Your task to perform on an android device: turn on the 12-hour format for clock Image 0: 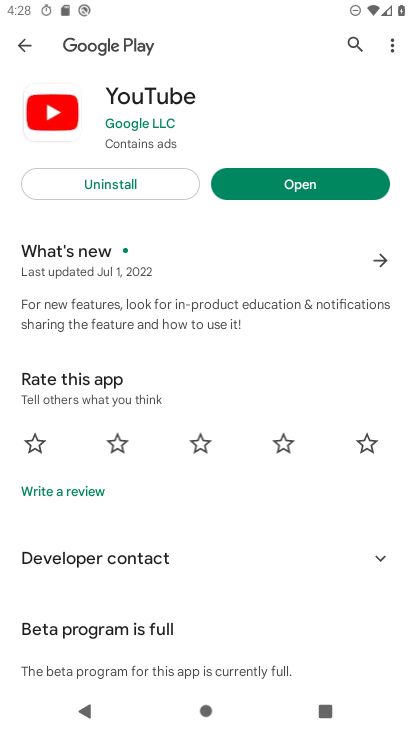
Step 0: press home button
Your task to perform on an android device: turn on the 12-hour format for clock Image 1: 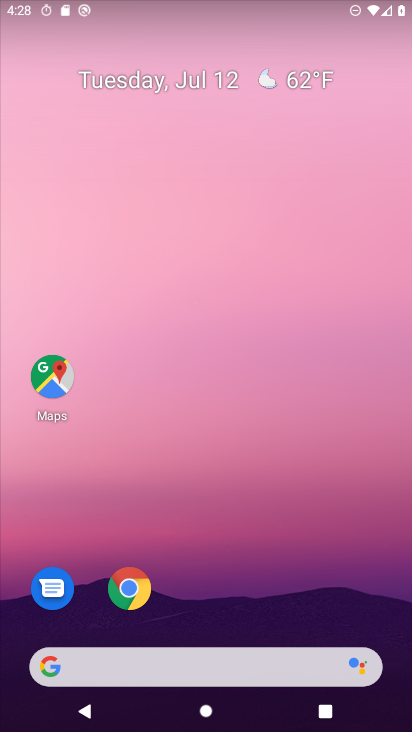
Step 1: drag from (208, 598) to (216, 69)
Your task to perform on an android device: turn on the 12-hour format for clock Image 2: 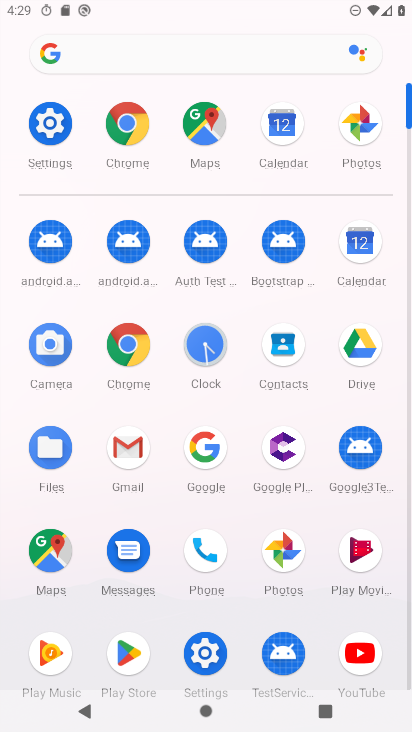
Step 2: click (195, 654)
Your task to perform on an android device: turn on the 12-hour format for clock Image 3: 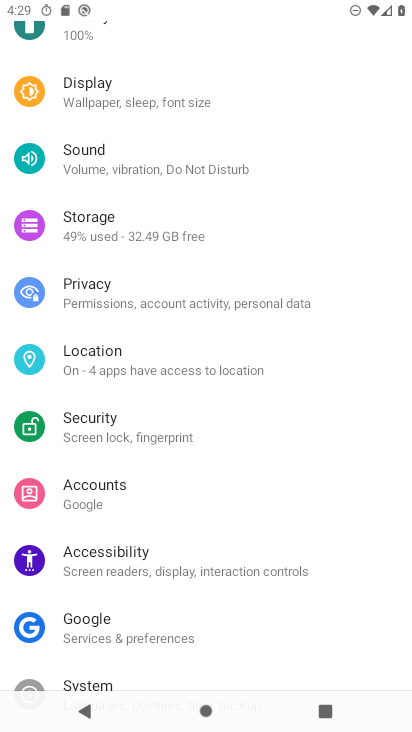
Step 3: drag from (132, 638) to (169, 365)
Your task to perform on an android device: turn on the 12-hour format for clock Image 4: 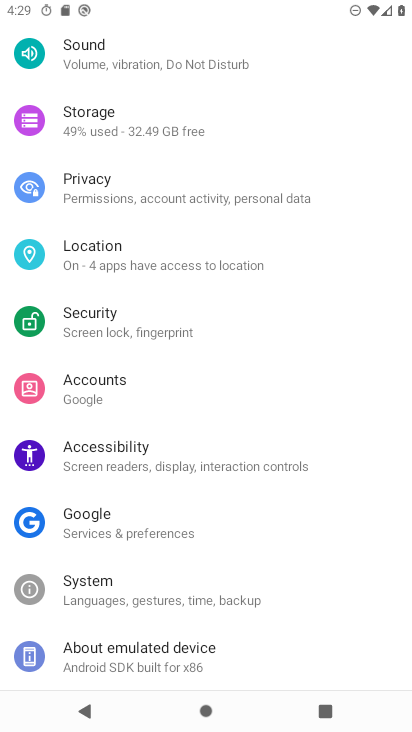
Step 4: click (115, 592)
Your task to perform on an android device: turn on the 12-hour format for clock Image 5: 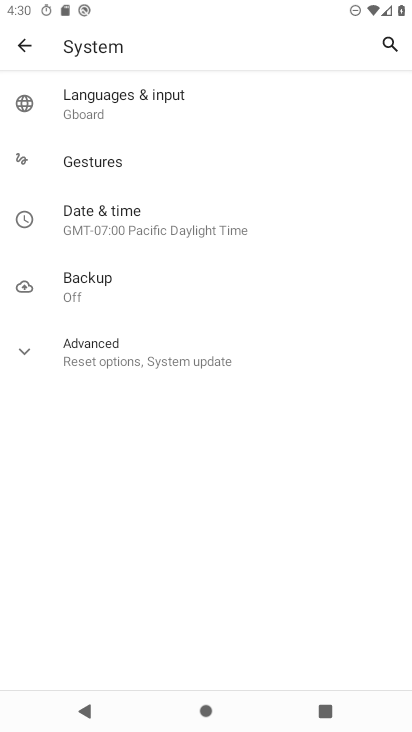
Step 5: click (148, 222)
Your task to perform on an android device: turn on the 12-hour format for clock Image 6: 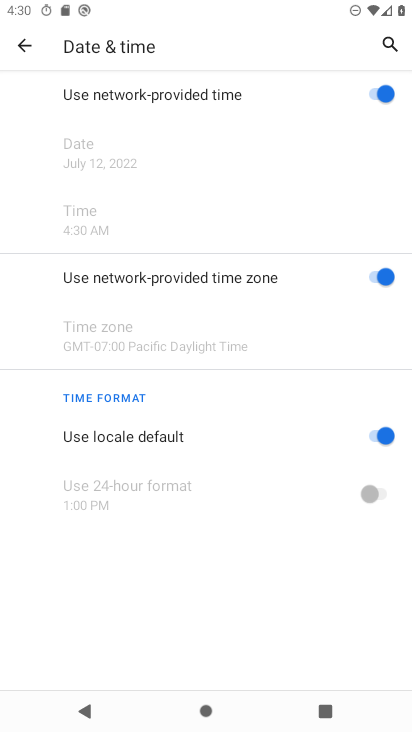
Step 6: click (385, 490)
Your task to perform on an android device: turn on the 12-hour format for clock Image 7: 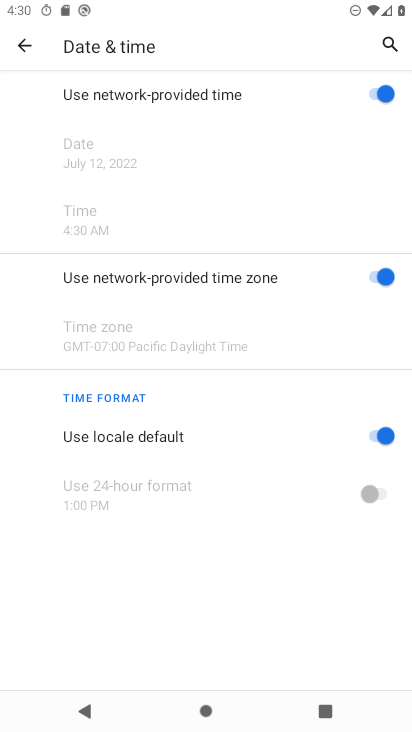
Step 7: task complete